Your task to perform on an android device: see tabs open on other devices in the chrome app Image 0: 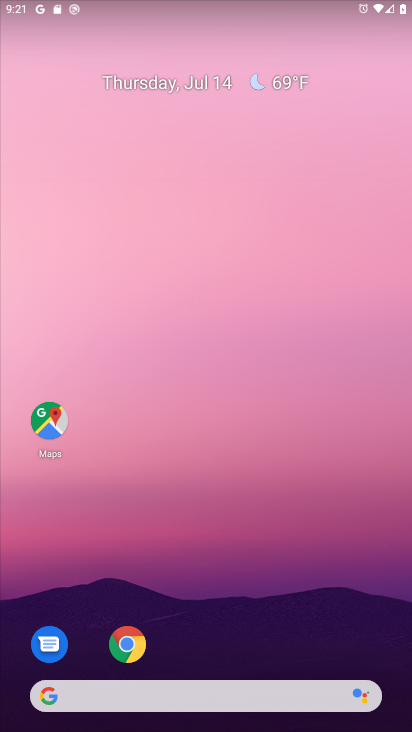
Step 0: click (126, 642)
Your task to perform on an android device: see tabs open on other devices in the chrome app Image 1: 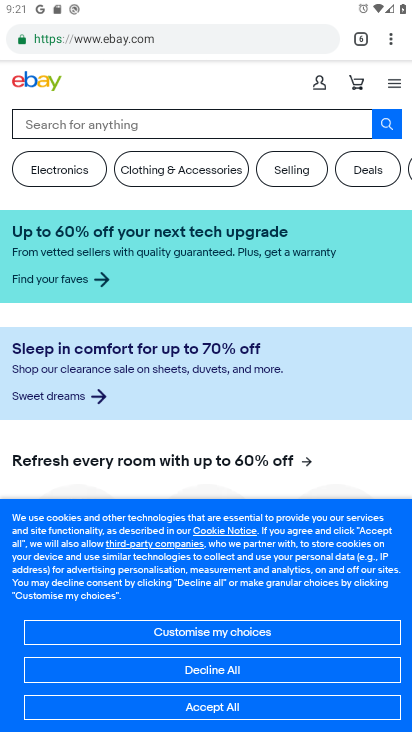
Step 1: click (353, 39)
Your task to perform on an android device: see tabs open on other devices in the chrome app Image 2: 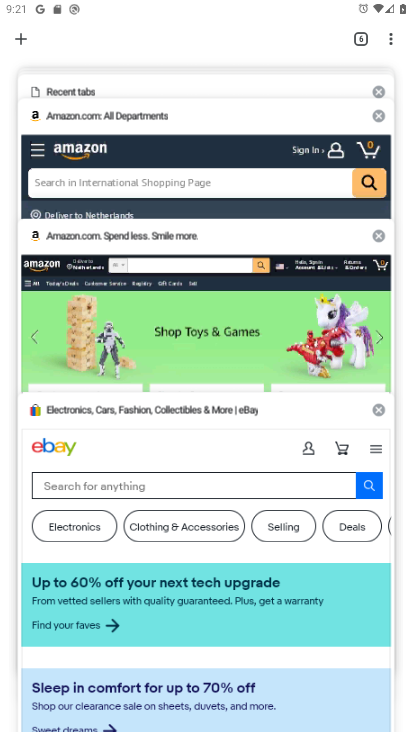
Step 2: click (26, 49)
Your task to perform on an android device: see tabs open on other devices in the chrome app Image 3: 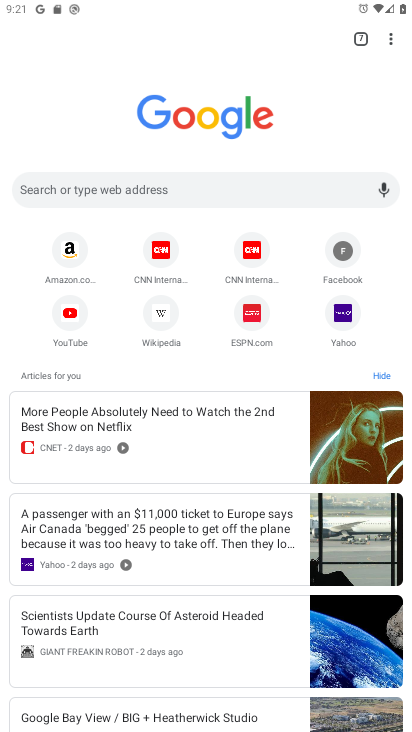
Step 3: task complete